Your task to perform on an android device: Do I have any events this weekend? Image 0: 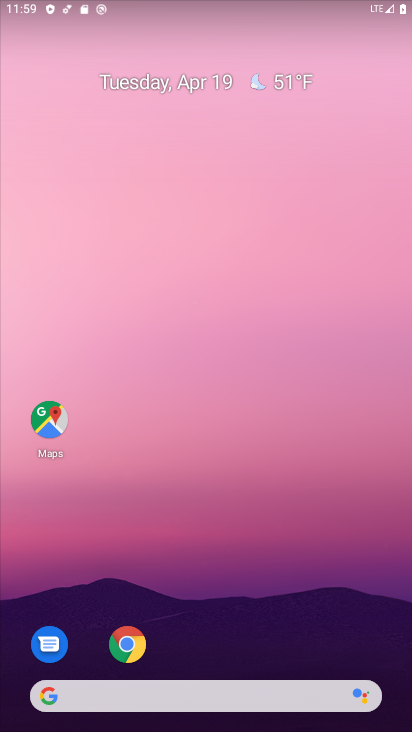
Step 0: drag from (210, 728) to (181, 75)
Your task to perform on an android device: Do I have any events this weekend? Image 1: 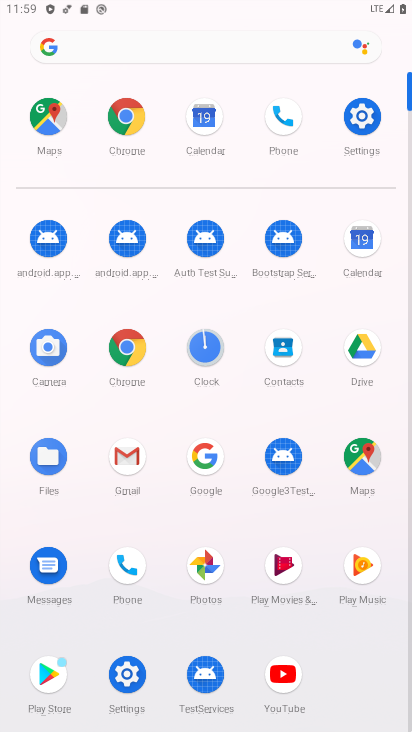
Step 1: click (363, 244)
Your task to perform on an android device: Do I have any events this weekend? Image 2: 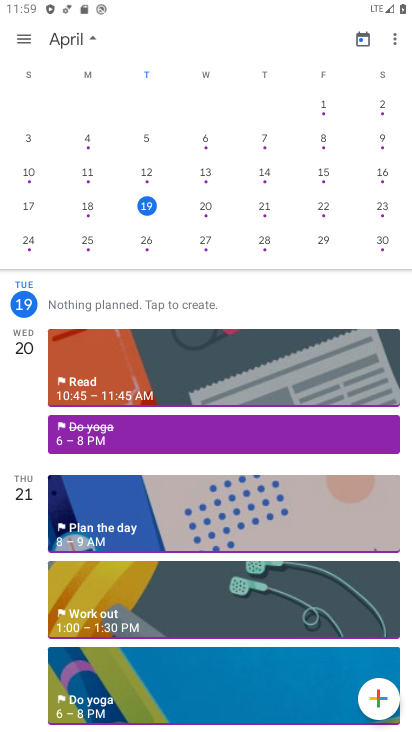
Step 2: click (382, 202)
Your task to perform on an android device: Do I have any events this weekend? Image 3: 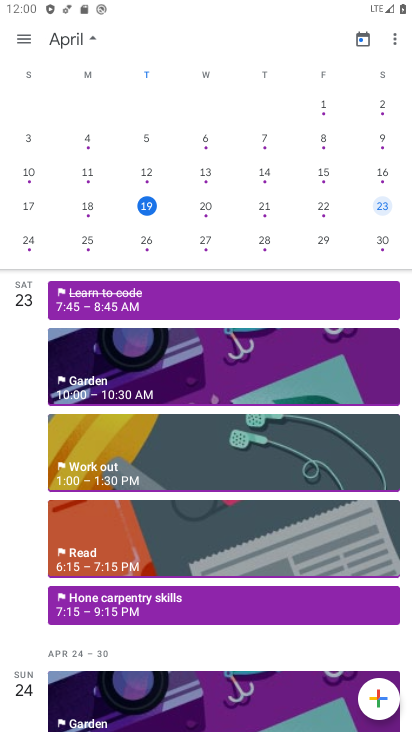
Step 3: task complete